Your task to perform on an android device: empty trash in google photos Image 0: 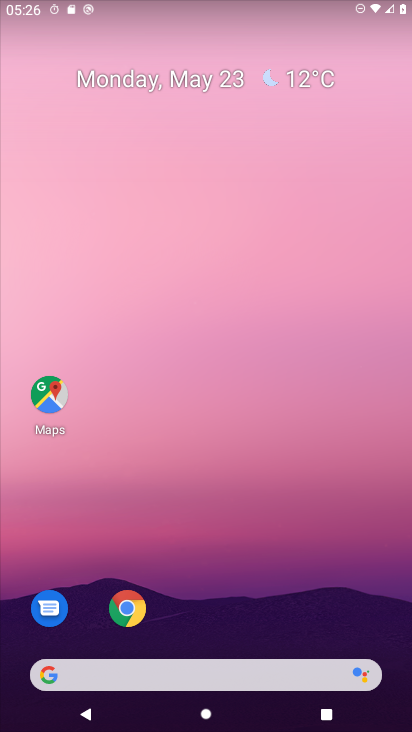
Step 0: drag from (286, 415) to (206, 13)
Your task to perform on an android device: empty trash in google photos Image 1: 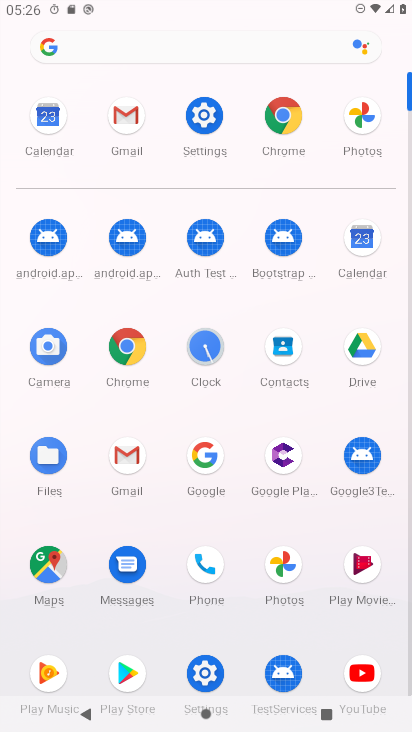
Step 1: click (220, 122)
Your task to perform on an android device: empty trash in google photos Image 2: 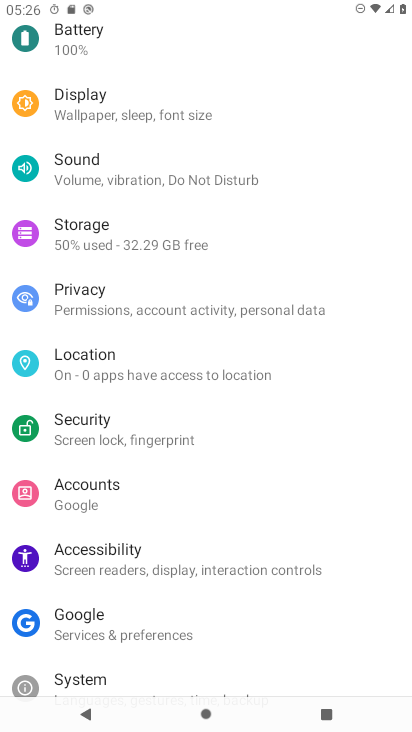
Step 2: press home button
Your task to perform on an android device: empty trash in google photos Image 3: 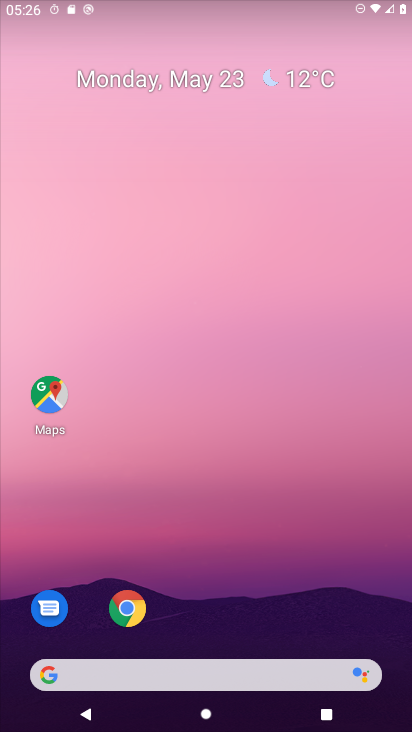
Step 3: drag from (265, 603) to (158, 9)
Your task to perform on an android device: empty trash in google photos Image 4: 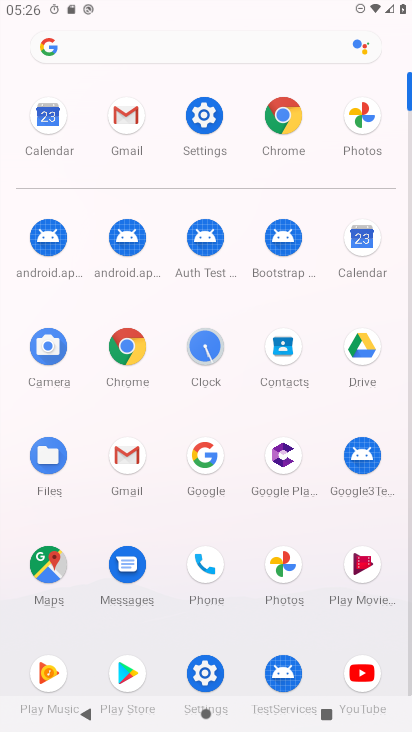
Step 4: click (277, 579)
Your task to perform on an android device: empty trash in google photos Image 5: 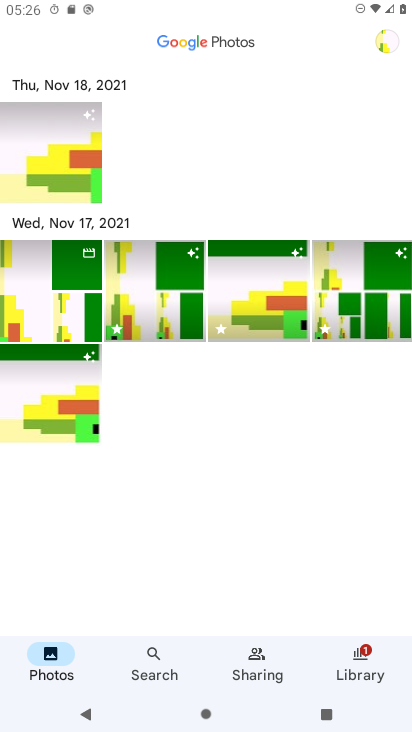
Step 5: click (350, 657)
Your task to perform on an android device: empty trash in google photos Image 6: 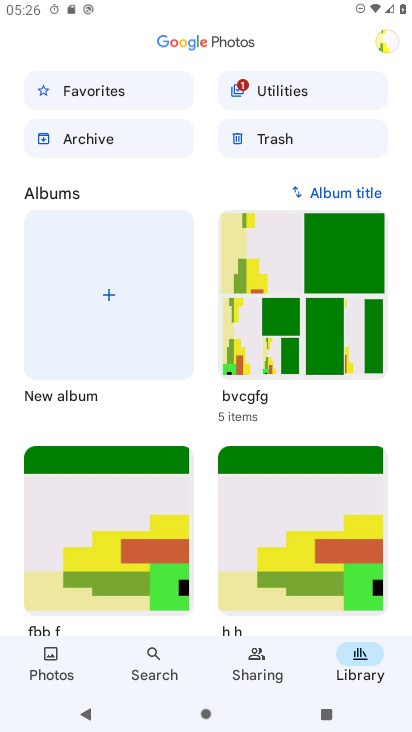
Step 6: click (281, 131)
Your task to perform on an android device: empty trash in google photos Image 7: 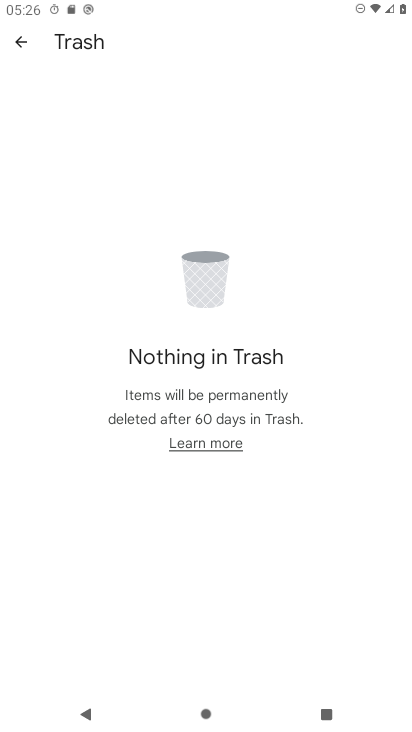
Step 7: task complete